Your task to perform on an android device: turn on the 12-hour format for clock Image 0: 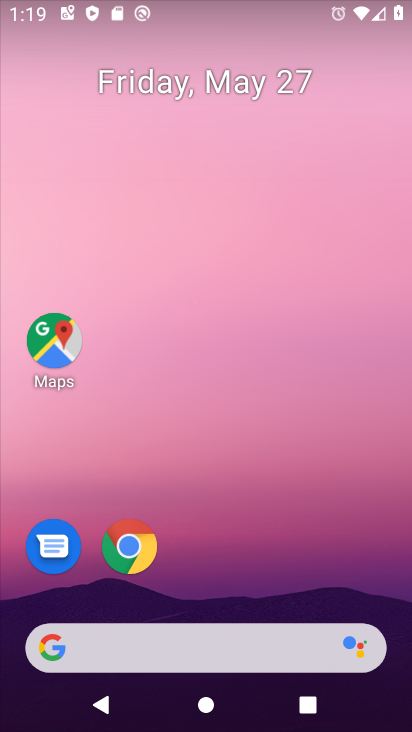
Step 0: drag from (270, 667) to (266, 81)
Your task to perform on an android device: turn on the 12-hour format for clock Image 1: 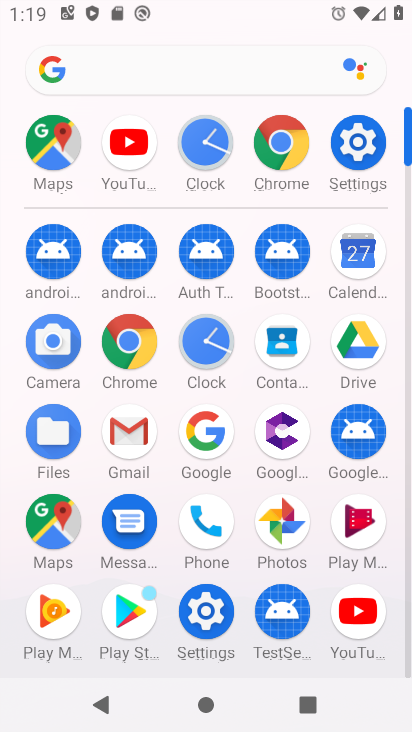
Step 1: click (212, 154)
Your task to perform on an android device: turn on the 12-hour format for clock Image 2: 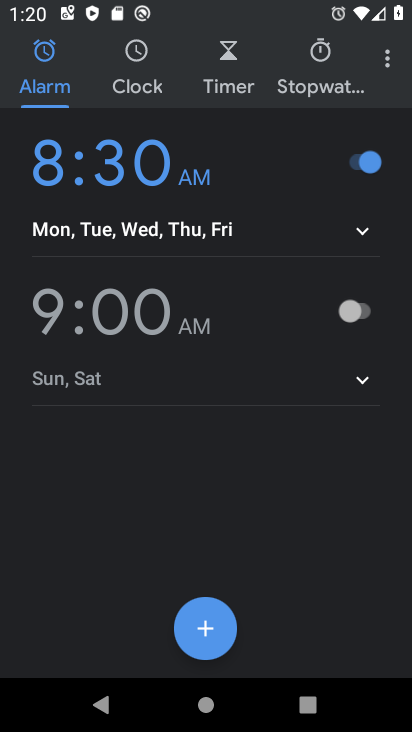
Step 2: click (384, 50)
Your task to perform on an android device: turn on the 12-hour format for clock Image 3: 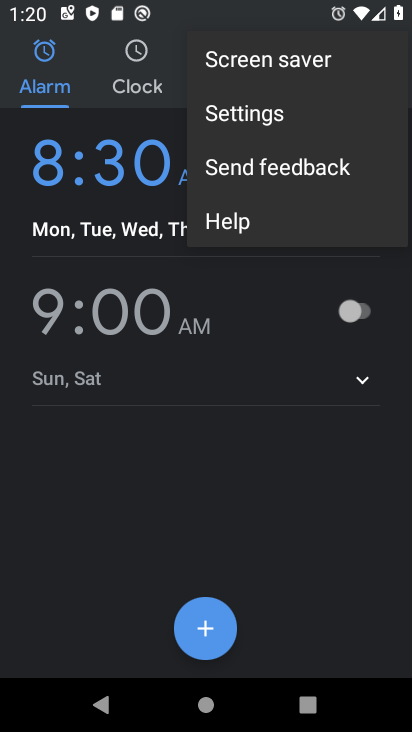
Step 3: click (293, 125)
Your task to perform on an android device: turn on the 12-hour format for clock Image 4: 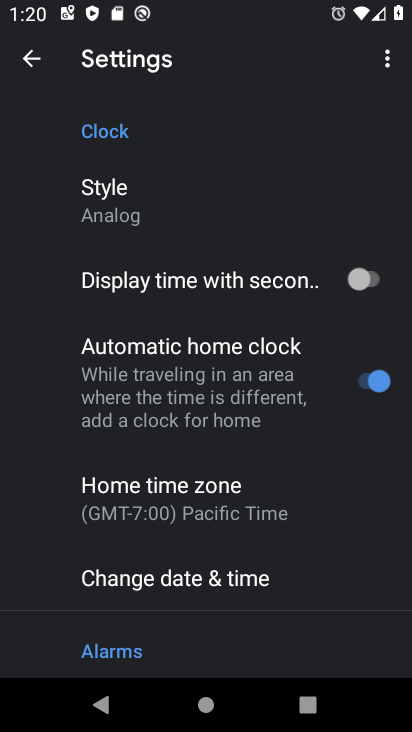
Step 4: click (180, 570)
Your task to perform on an android device: turn on the 12-hour format for clock Image 5: 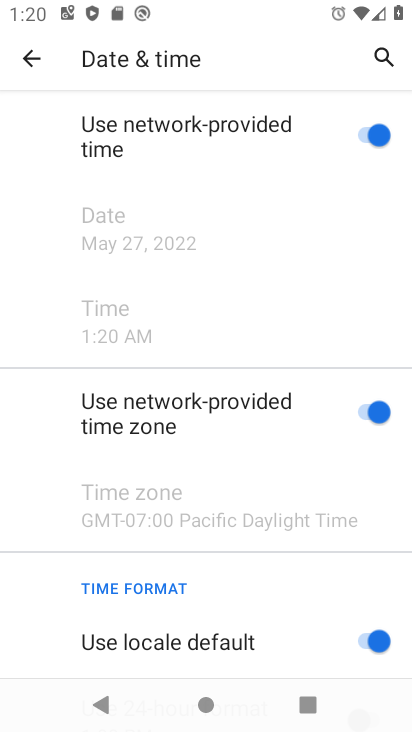
Step 5: drag from (166, 624) to (289, 365)
Your task to perform on an android device: turn on the 12-hour format for clock Image 6: 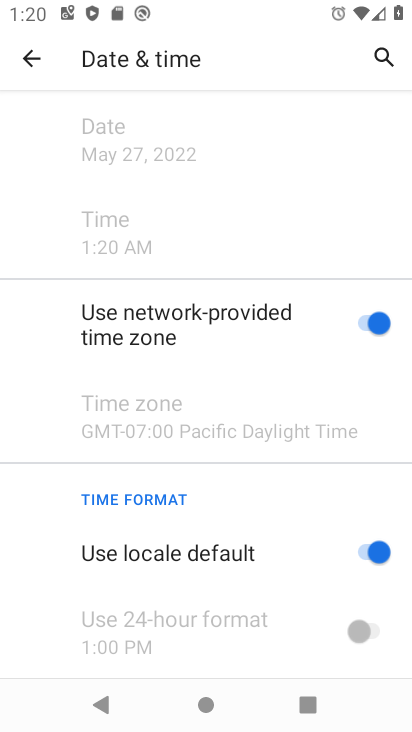
Step 6: click (375, 549)
Your task to perform on an android device: turn on the 12-hour format for clock Image 7: 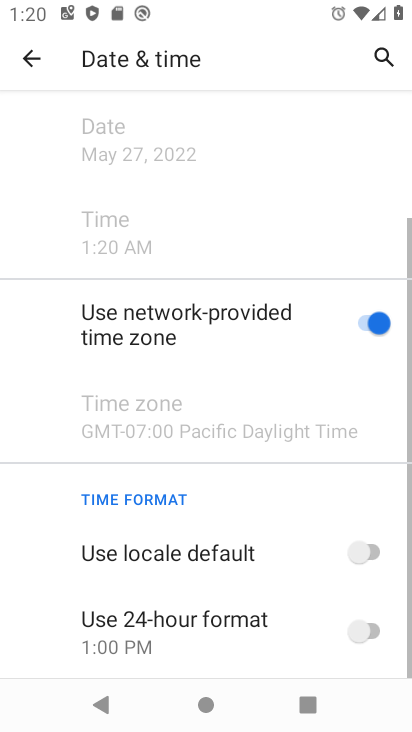
Step 7: click (375, 632)
Your task to perform on an android device: turn on the 12-hour format for clock Image 8: 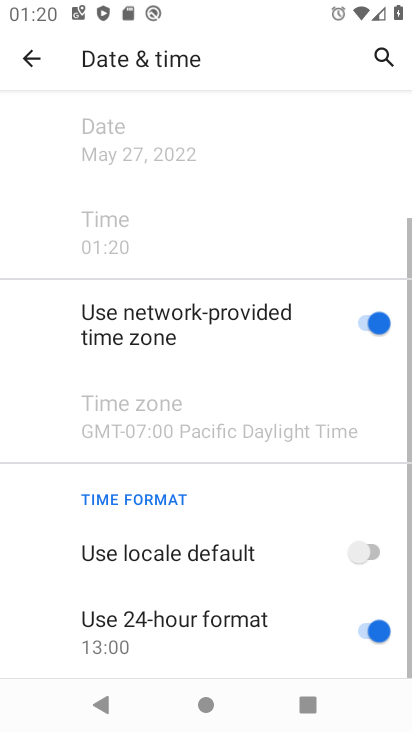
Step 8: click (375, 632)
Your task to perform on an android device: turn on the 12-hour format for clock Image 9: 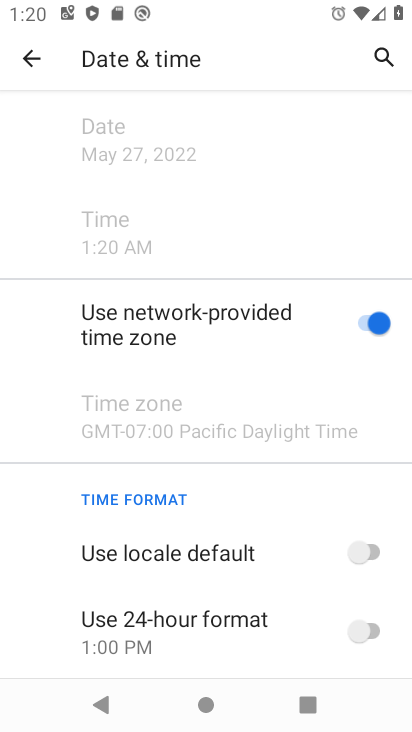
Step 9: task complete